Your task to perform on an android device: stop showing notifications on the lock screen Image 0: 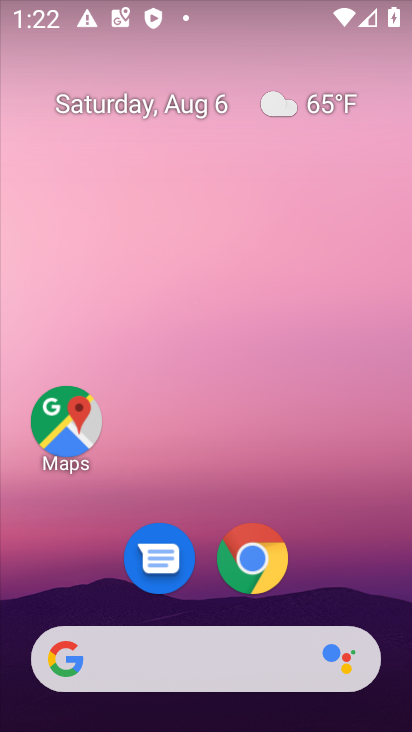
Step 0: drag from (185, 661) to (195, 19)
Your task to perform on an android device: stop showing notifications on the lock screen Image 1: 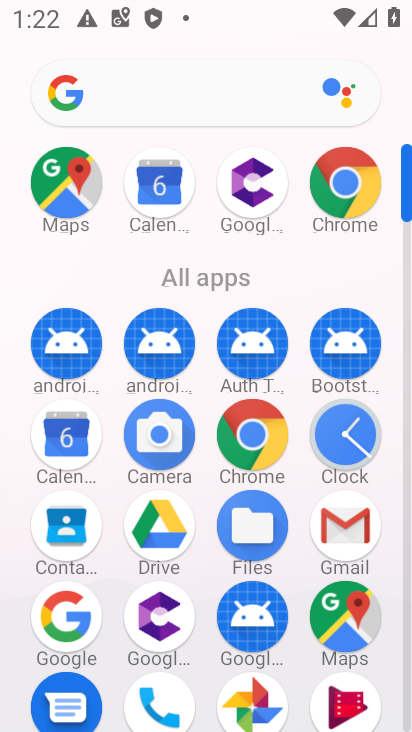
Step 1: drag from (195, 636) to (166, 57)
Your task to perform on an android device: stop showing notifications on the lock screen Image 2: 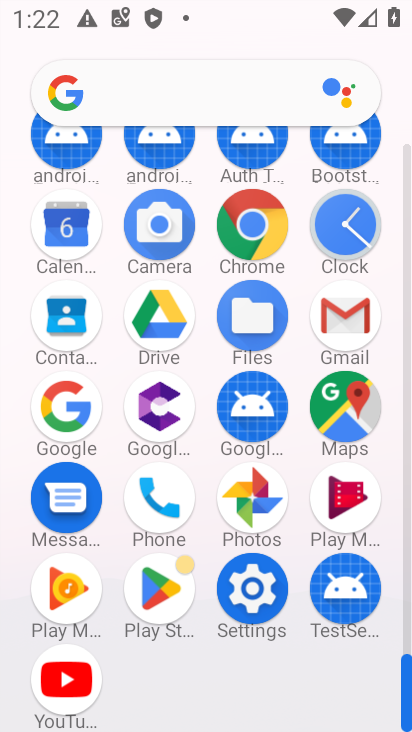
Step 2: click (262, 599)
Your task to perform on an android device: stop showing notifications on the lock screen Image 3: 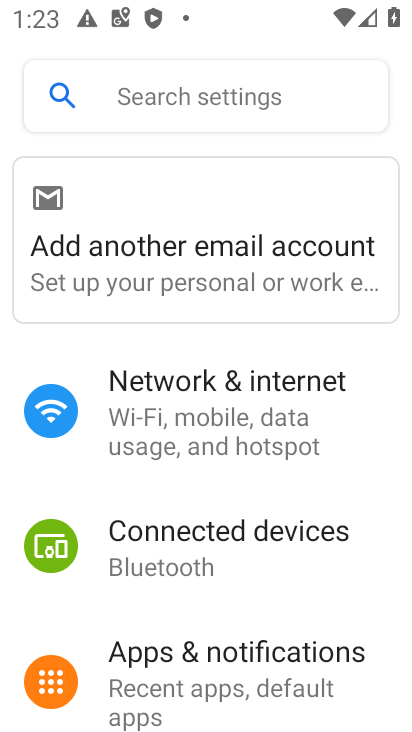
Step 3: click (224, 636)
Your task to perform on an android device: stop showing notifications on the lock screen Image 4: 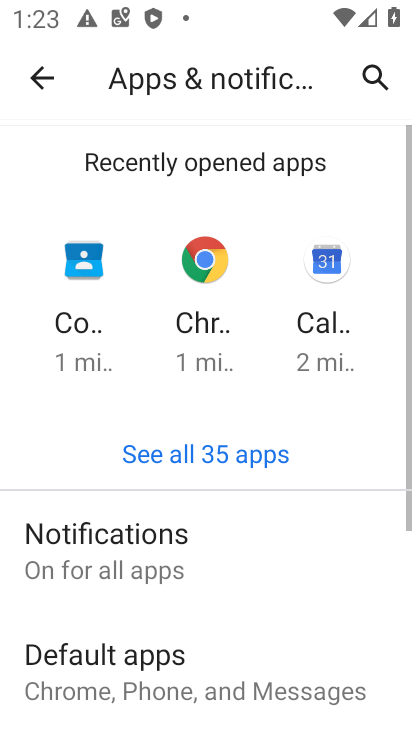
Step 4: click (109, 542)
Your task to perform on an android device: stop showing notifications on the lock screen Image 5: 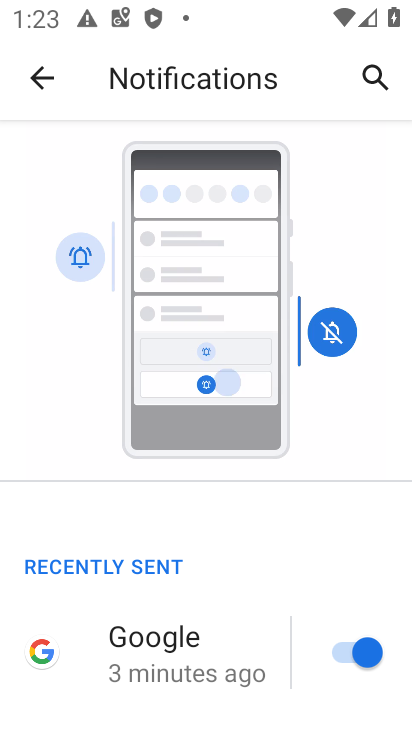
Step 5: click (109, 542)
Your task to perform on an android device: stop showing notifications on the lock screen Image 6: 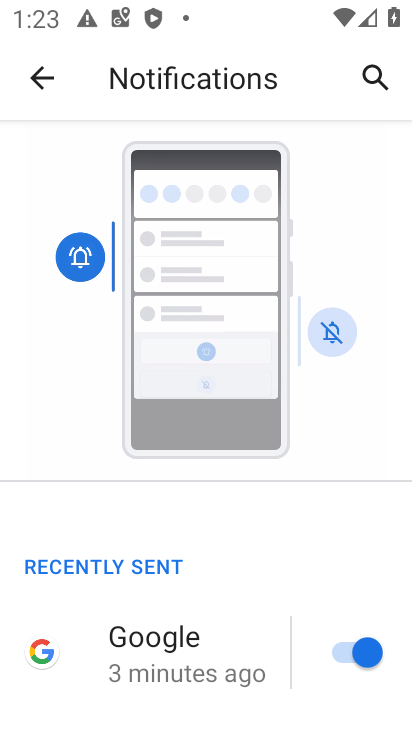
Step 6: drag from (127, 538) to (24, 29)
Your task to perform on an android device: stop showing notifications on the lock screen Image 7: 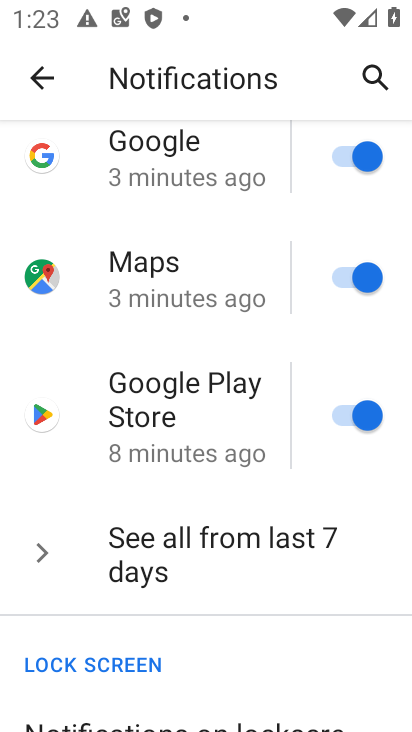
Step 7: drag from (219, 647) to (169, 135)
Your task to perform on an android device: stop showing notifications on the lock screen Image 8: 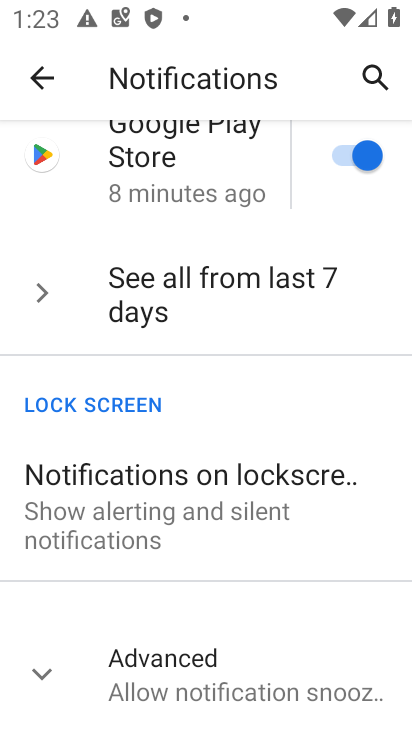
Step 8: click (127, 502)
Your task to perform on an android device: stop showing notifications on the lock screen Image 9: 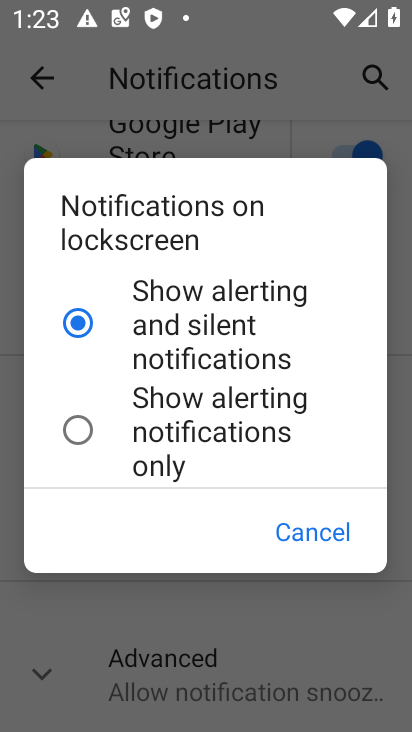
Step 9: drag from (198, 445) to (134, 29)
Your task to perform on an android device: stop showing notifications on the lock screen Image 10: 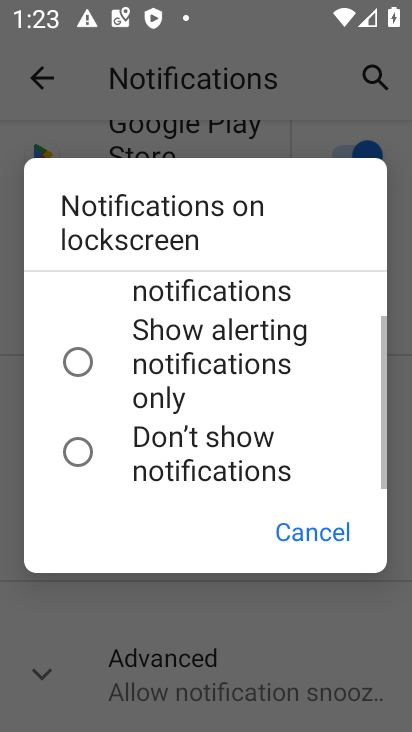
Step 10: click (180, 447)
Your task to perform on an android device: stop showing notifications on the lock screen Image 11: 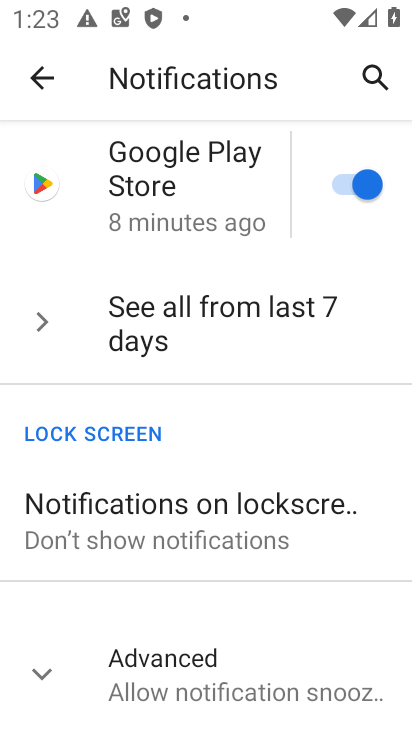
Step 11: task complete